Your task to perform on an android device: check battery use Image 0: 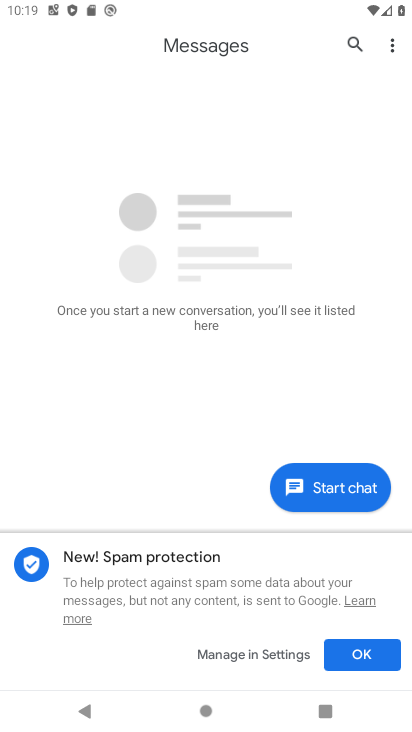
Step 0: press home button
Your task to perform on an android device: check battery use Image 1: 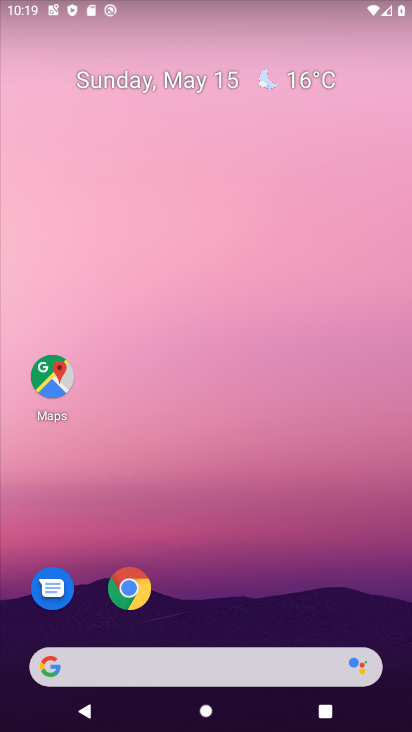
Step 1: drag from (197, 609) to (266, 58)
Your task to perform on an android device: check battery use Image 2: 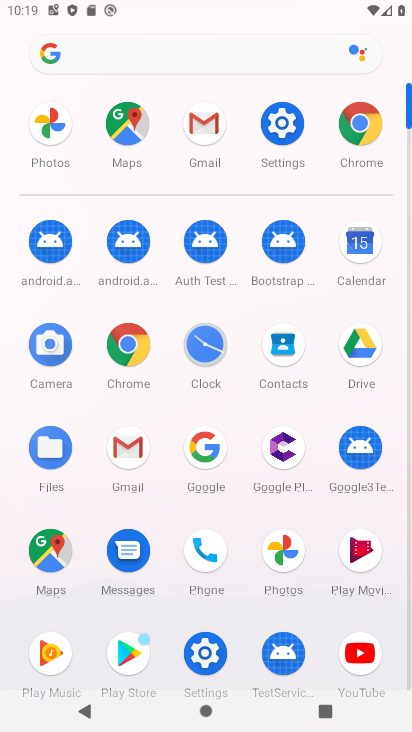
Step 2: click (276, 151)
Your task to perform on an android device: check battery use Image 3: 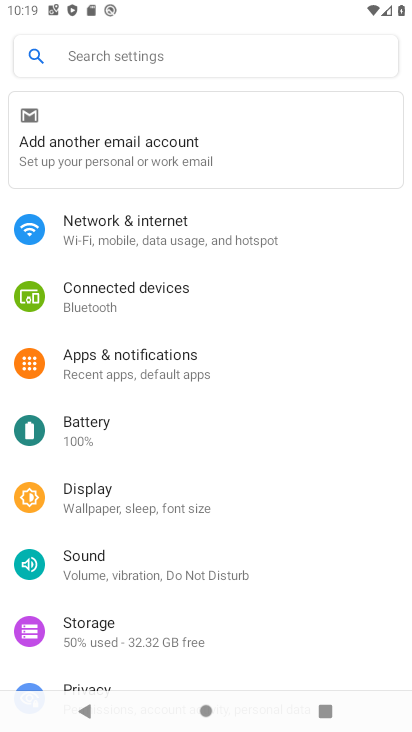
Step 3: click (128, 425)
Your task to perform on an android device: check battery use Image 4: 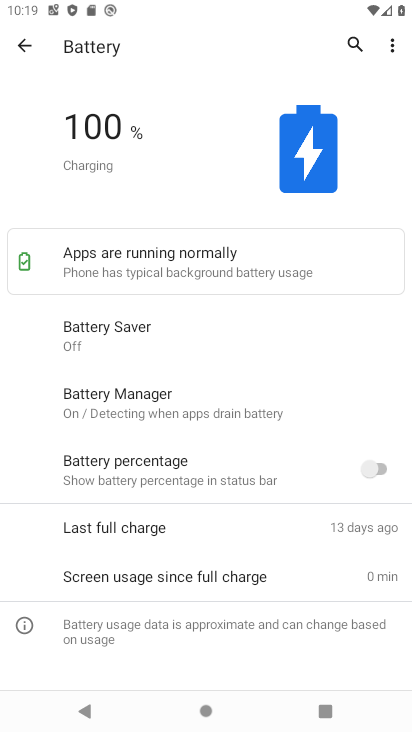
Step 4: task complete